Your task to perform on an android device: What's on my calendar today? Image 0: 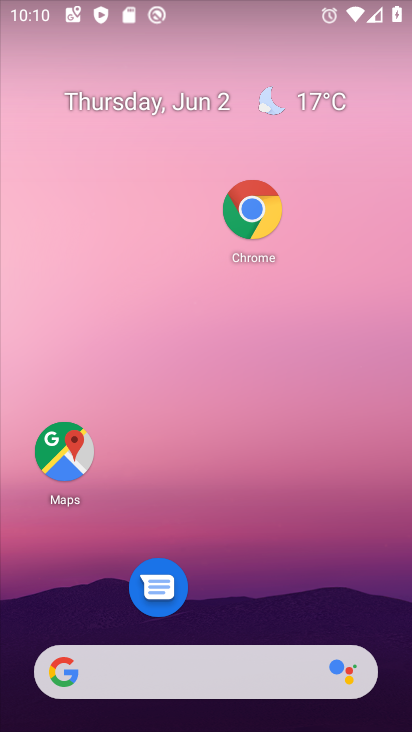
Step 0: press home button
Your task to perform on an android device: What's on my calendar today? Image 1: 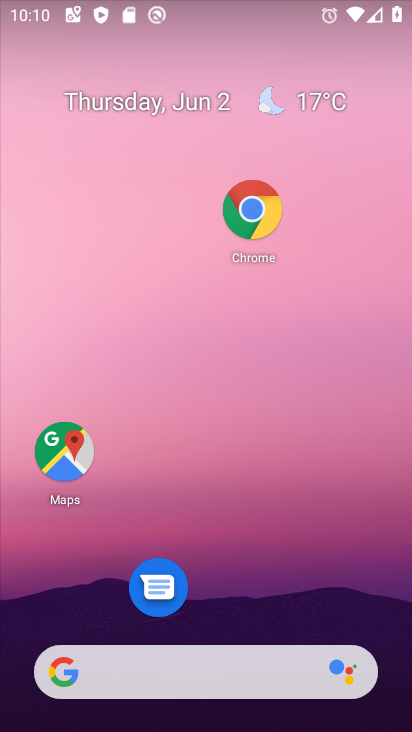
Step 1: drag from (231, 624) to (228, 161)
Your task to perform on an android device: What's on my calendar today? Image 2: 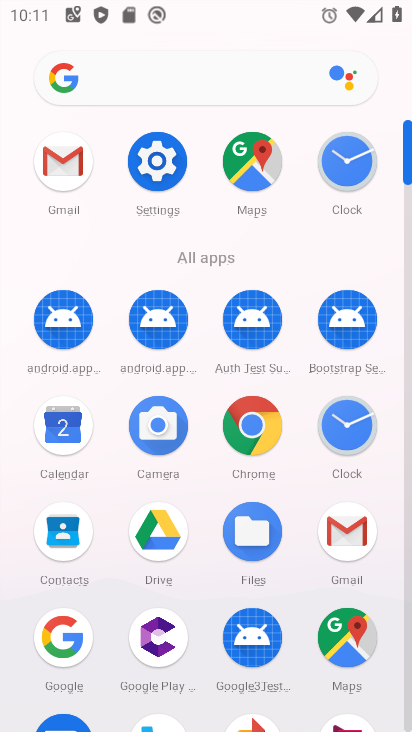
Step 2: click (62, 422)
Your task to perform on an android device: What's on my calendar today? Image 3: 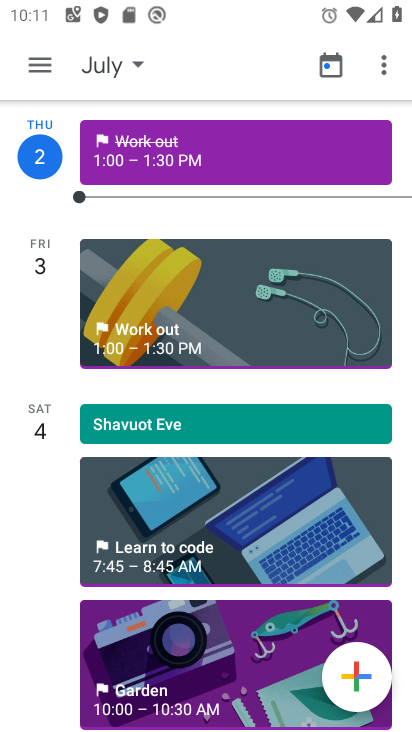
Step 3: click (44, 171)
Your task to perform on an android device: What's on my calendar today? Image 4: 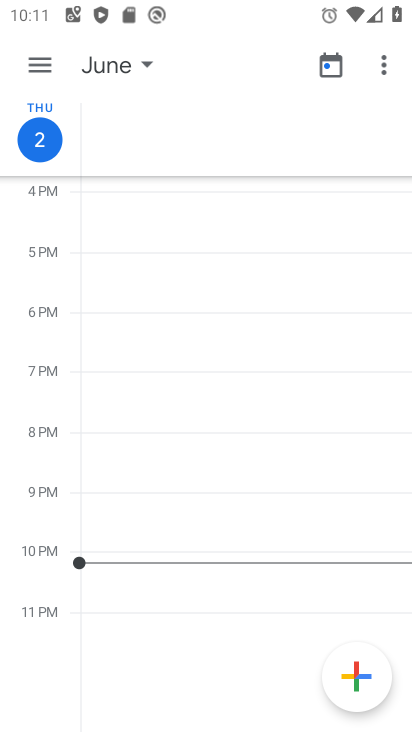
Step 4: task complete